Your task to perform on an android device: Open Google Maps Image 0: 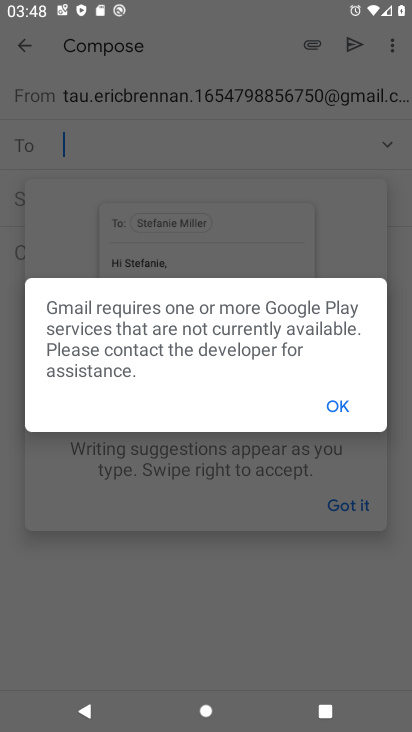
Step 0: press home button
Your task to perform on an android device: Open Google Maps Image 1: 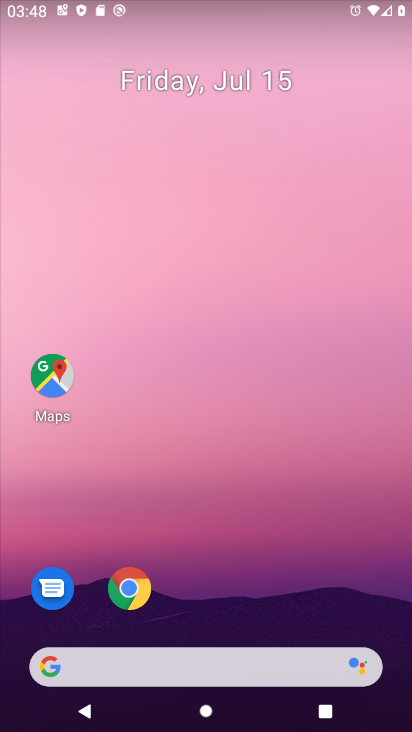
Step 1: click (53, 378)
Your task to perform on an android device: Open Google Maps Image 2: 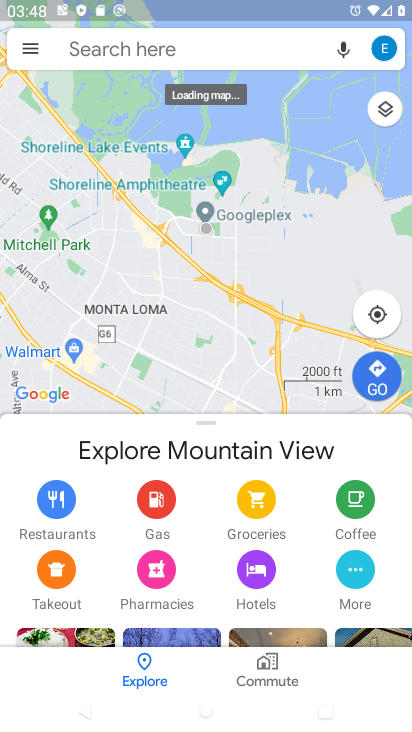
Step 2: task complete